Your task to perform on an android device: open chrome and create a bookmark for the current page Image 0: 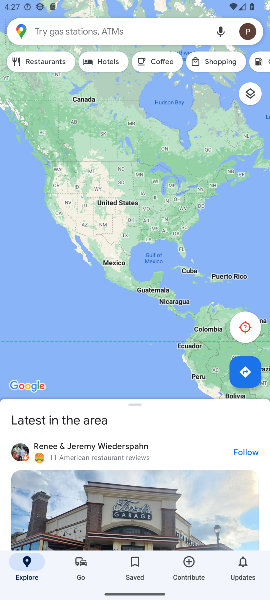
Step 0: press home button
Your task to perform on an android device: open chrome and create a bookmark for the current page Image 1: 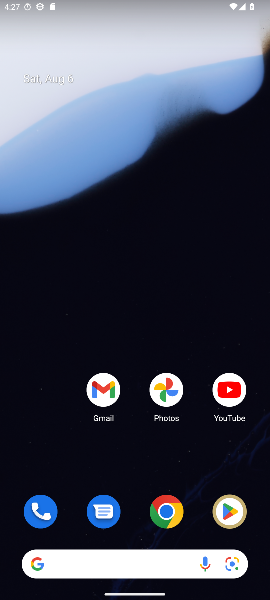
Step 1: click (134, 507)
Your task to perform on an android device: open chrome and create a bookmark for the current page Image 2: 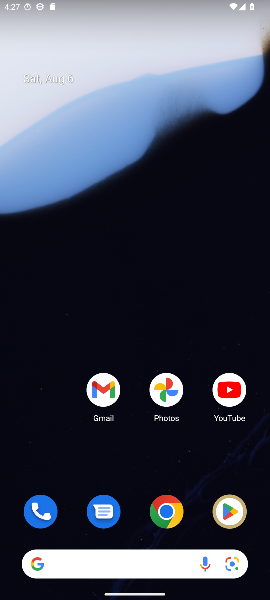
Step 2: click (165, 518)
Your task to perform on an android device: open chrome and create a bookmark for the current page Image 3: 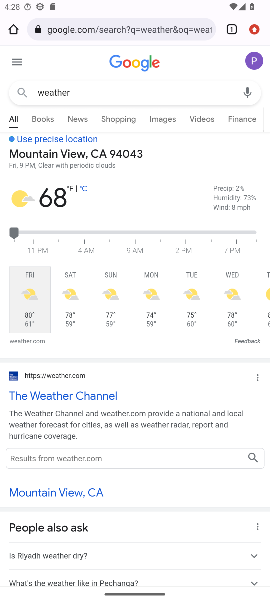
Step 3: click (257, 22)
Your task to perform on an android device: open chrome and create a bookmark for the current page Image 4: 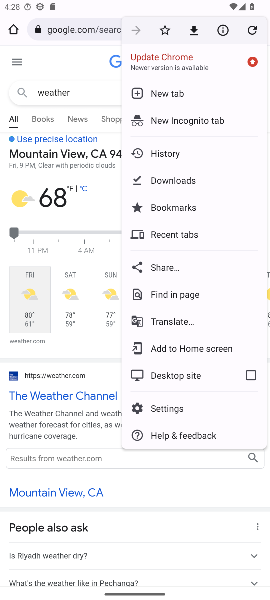
Step 4: click (164, 27)
Your task to perform on an android device: open chrome and create a bookmark for the current page Image 5: 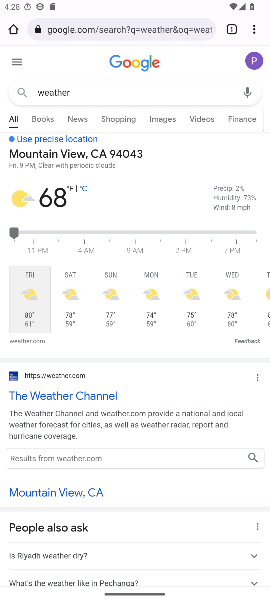
Step 5: task complete